Your task to perform on an android device: Show me popular videos on Youtube Image 0: 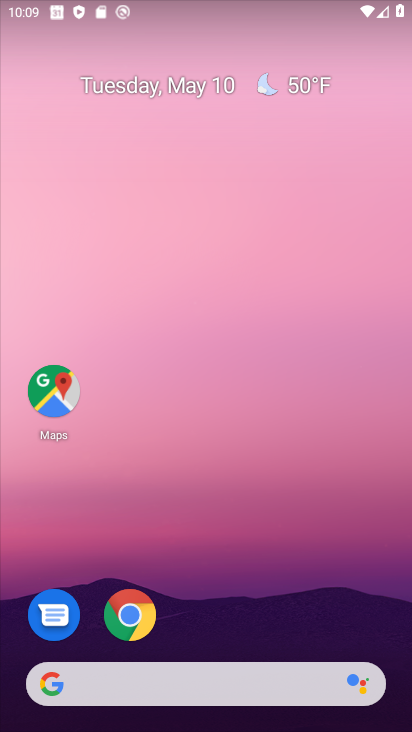
Step 0: drag from (223, 627) to (239, 63)
Your task to perform on an android device: Show me popular videos on Youtube Image 1: 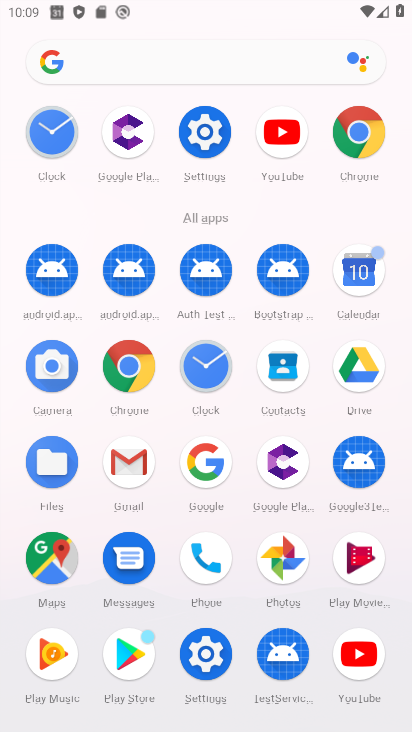
Step 1: click (359, 663)
Your task to perform on an android device: Show me popular videos on Youtube Image 2: 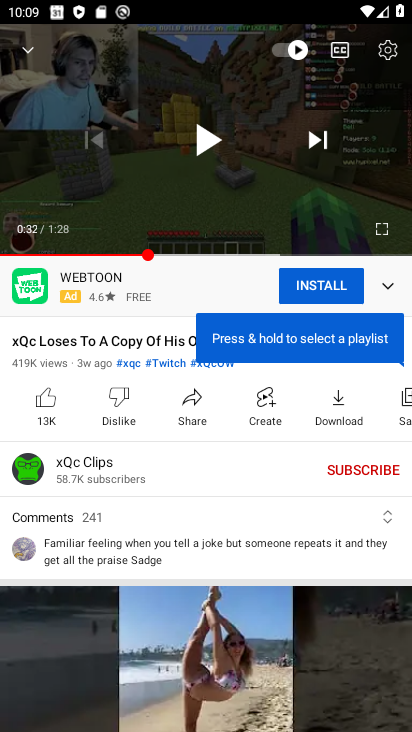
Step 2: click (22, 48)
Your task to perform on an android device: Show me popular videos on Youtube Image 3: 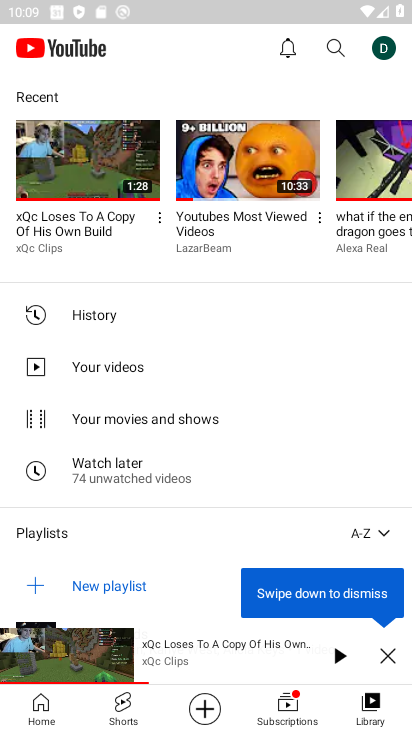
Step 3: click (381, 649)
Your task to perform on an android device: Show me popular videos on Youtube Image 4: 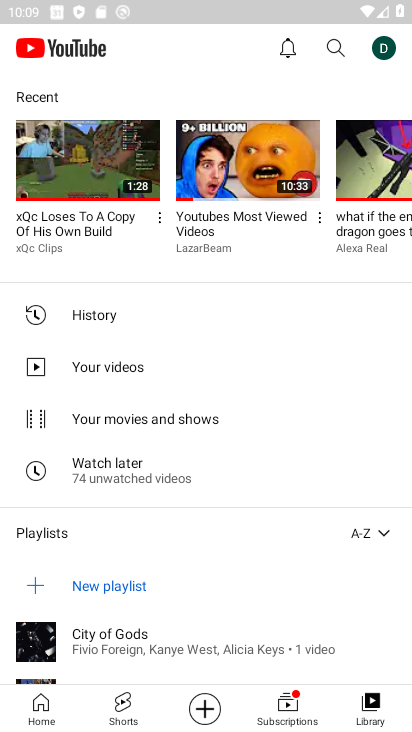
Step 4: click (41, 702)
Your task to perform on an android device: Show me popular videos on Youtube Image 5: 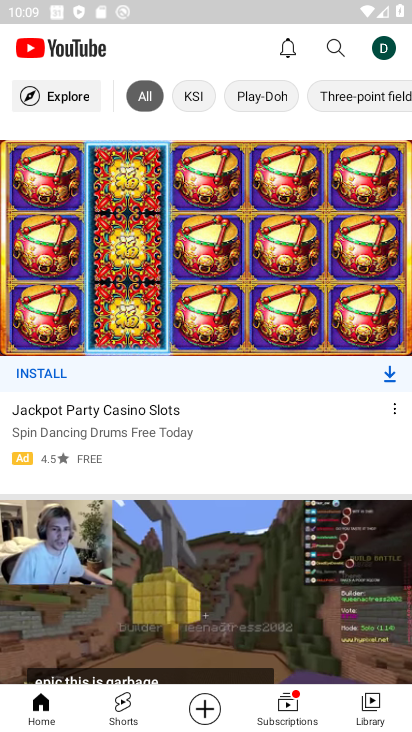
Step 5: click (63, 95)
Your task to perform on an android device: Show me popular videos on Youtube Image 6: 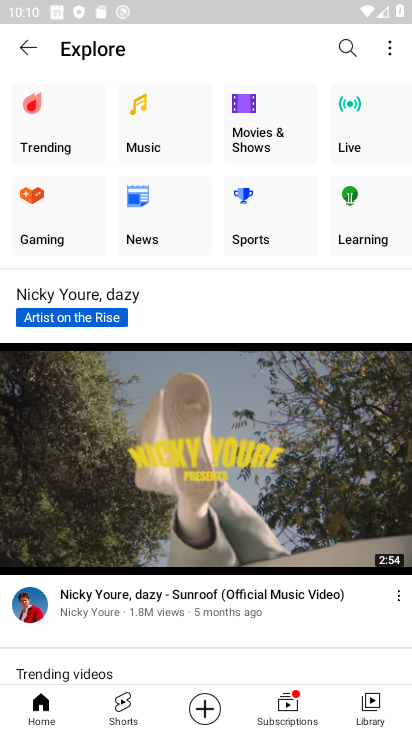
Step 6: click (55, 110)
Your task to perform on an android device: Show me popular videos on Youtube Image 7: 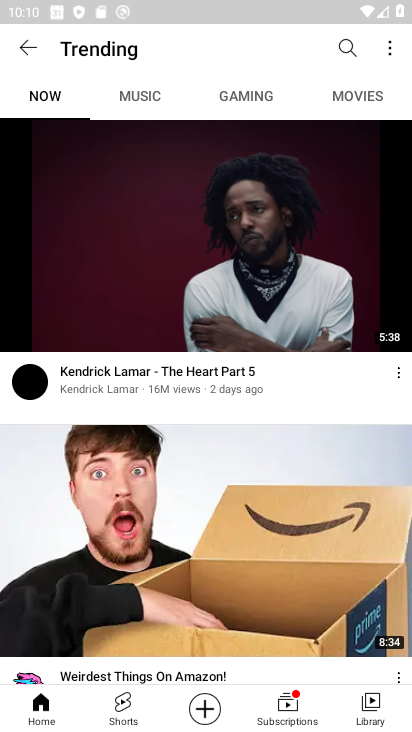
Step 7: task complete